Your task to perform on an android device: What's on my calendar tomorrow? Image 0: 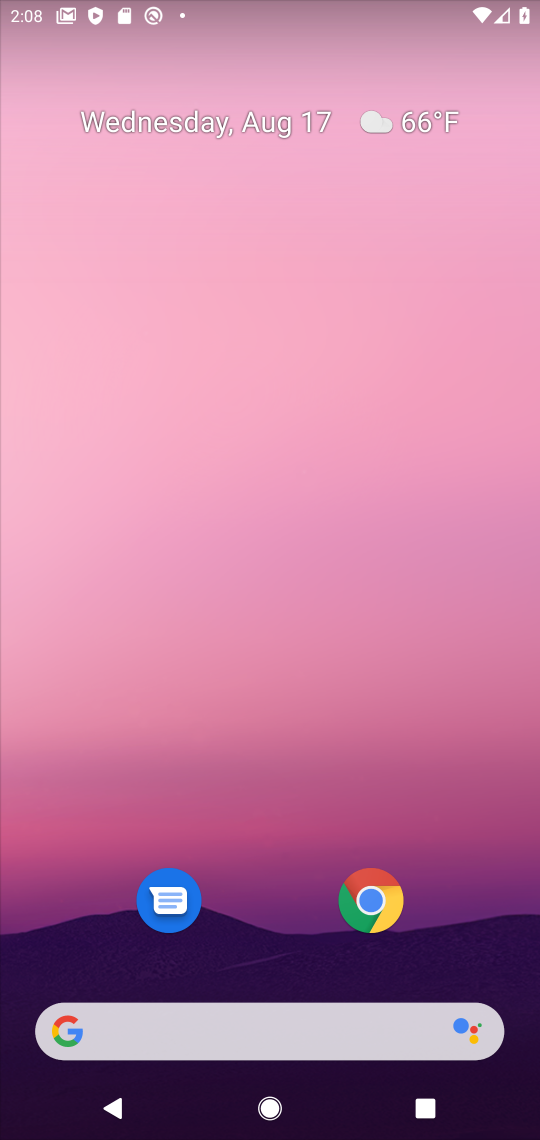
Step 0: drag from (250, 1022) to (269, 164)
Your task to perform on an android device: What's on my calendar tomorrow? Image 1: 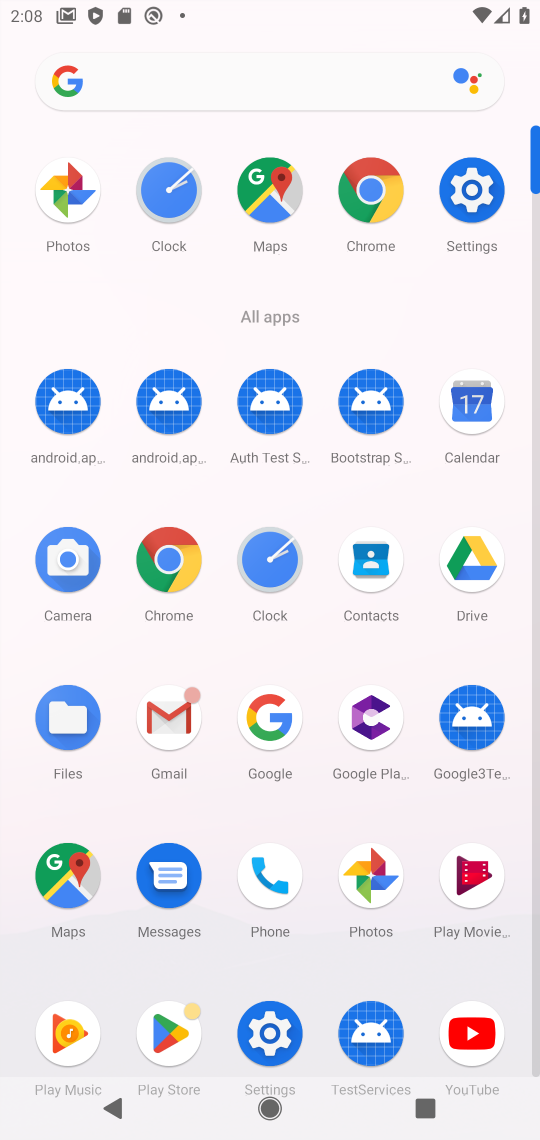
Step 1: click (472, 400)
Your task to perform on an android device: What's on my calendar tomorrow? Image 2: 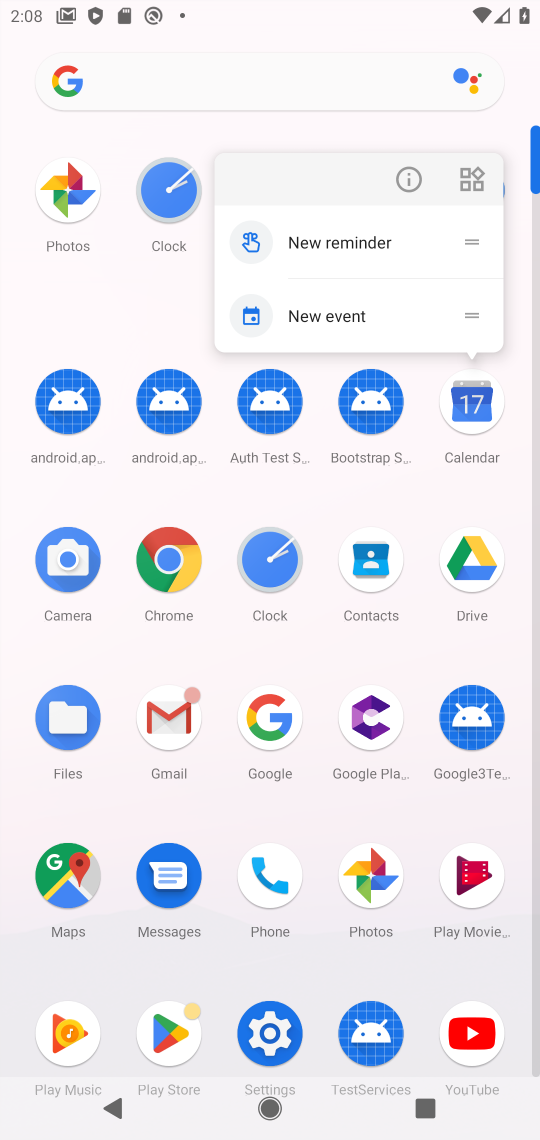
Step 2: click (464, 409)
Your task to perform on an android device: What's on my calendar tomorrow? Image 3: 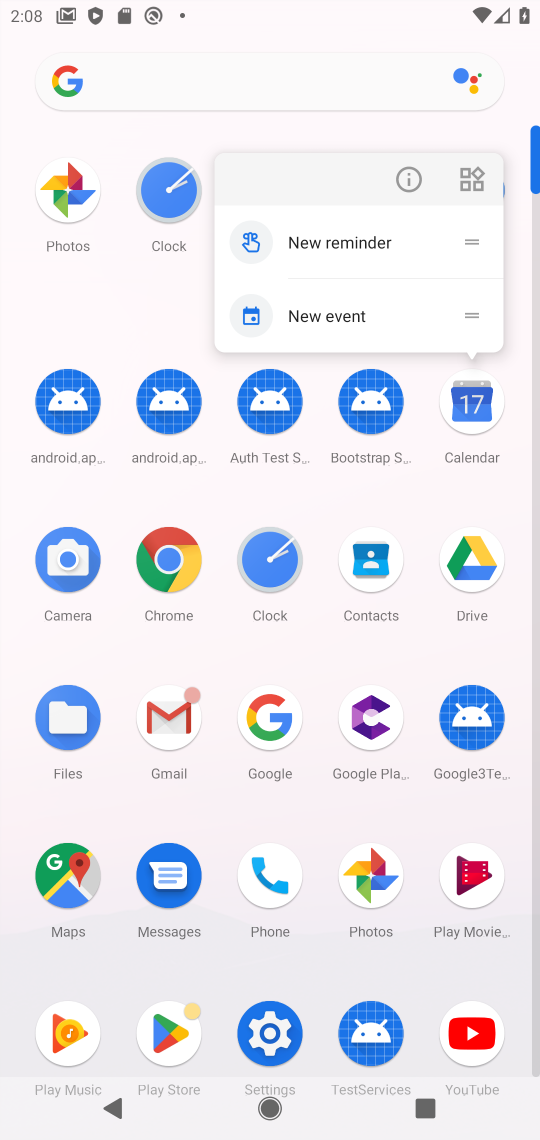
Step 3: click (489, 408)
Your task to perform on an android device: What's on my calendar tomorrow? Image 4: 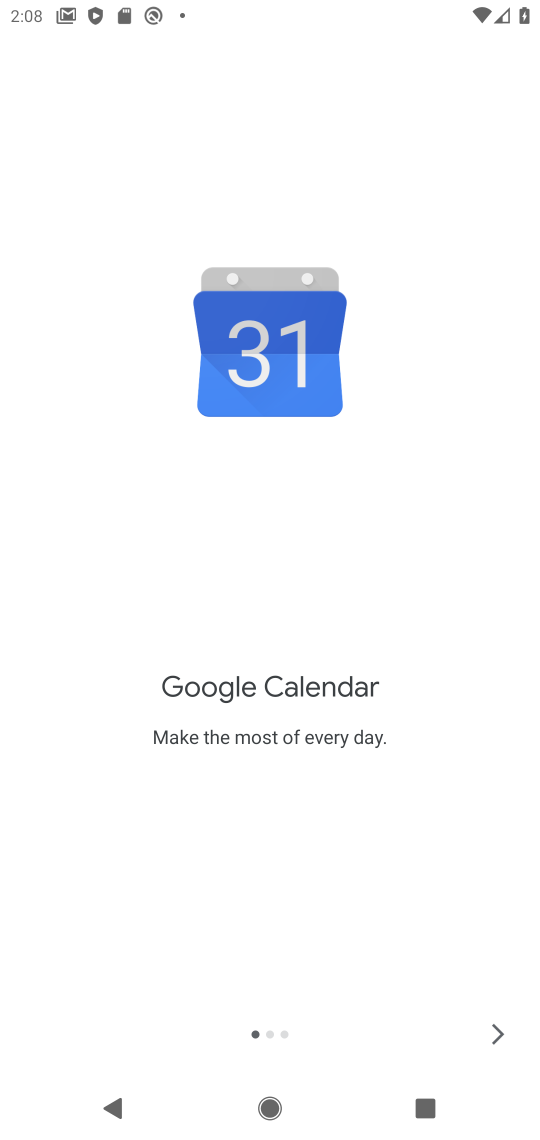
Step 4: click (495, 1037)
Your task to perform on an android device: What's on my calendar tomorrow? Image 5: 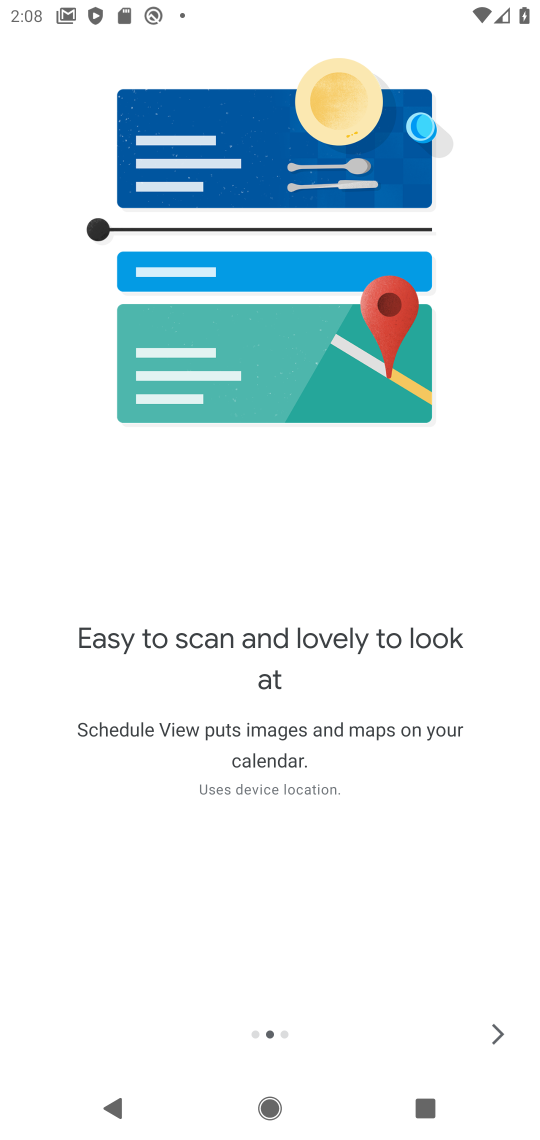
Step 5: click (504, 1038)
Your task to perform on an android device: What's on my calendar tomorrow? Image 6: 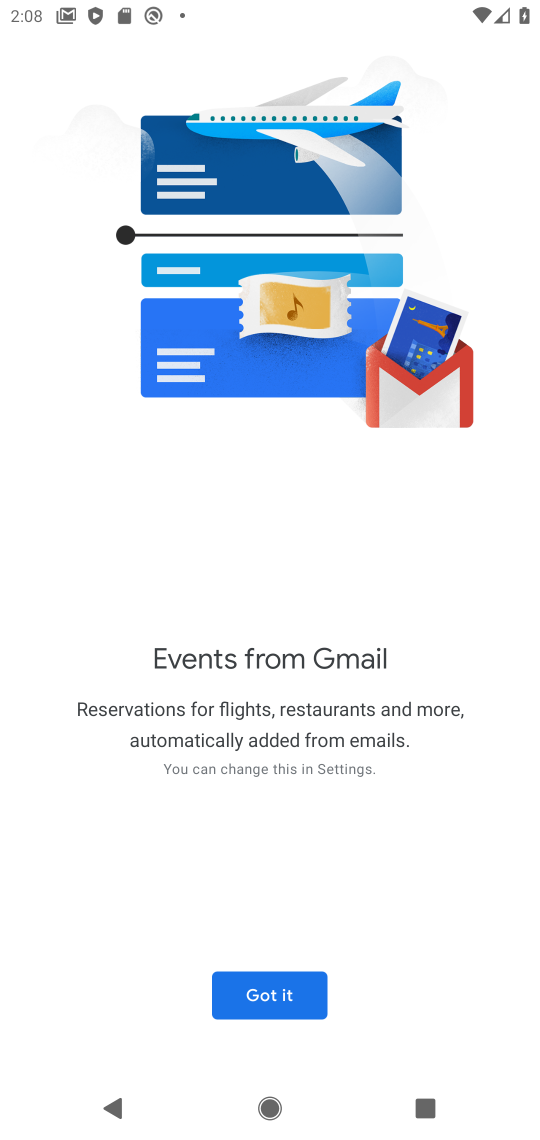
Step 6: click (272, 974)
Your task to perform on an android device: What's on my calendar tomorrow? Image 7: 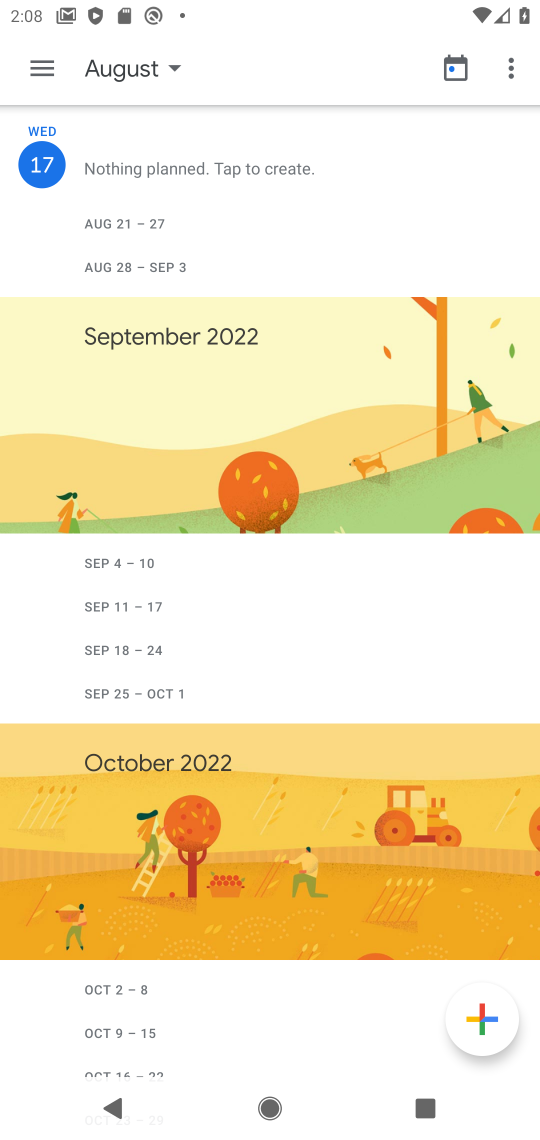
Step 7: click (136, 59)
Your task to perform on an android device: What's on my calendar tomorrow? Image 8: 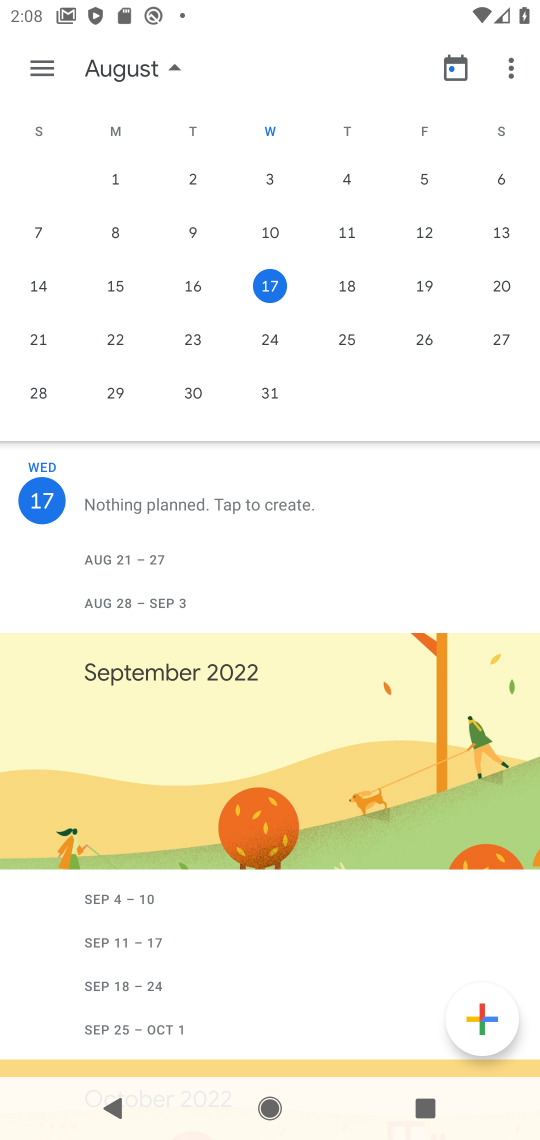
Step 8: click (359, 285)
Your task to perform on an android device: What's on my calendar tomorrow? Image 9: 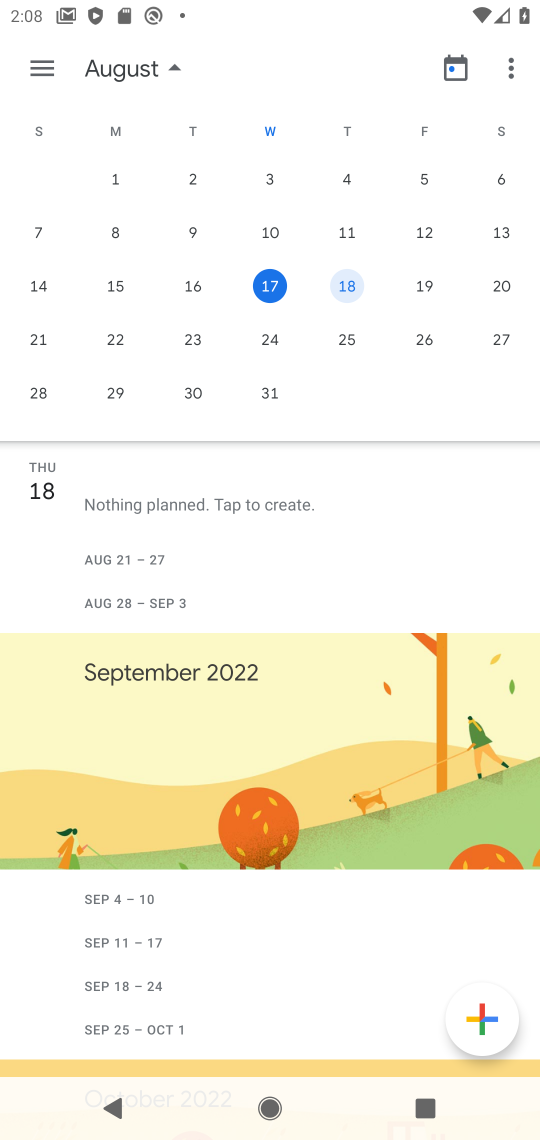
Step 9: click (44, 56)
Your task to perform on an android device: What's on my calendar tomorrow? Image 10: 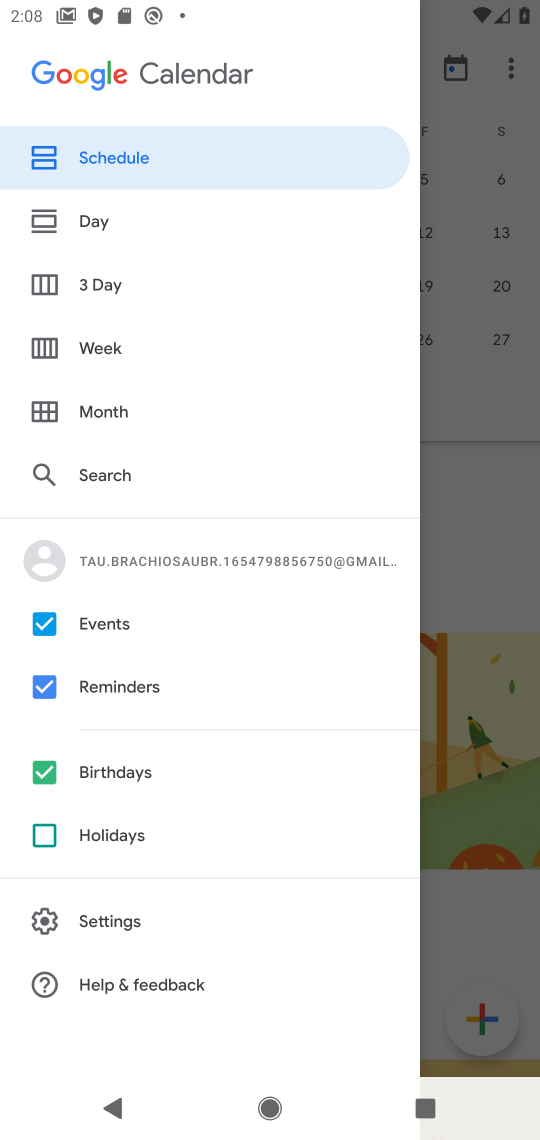
Step 10: click (104, 218)
Your task to perform on an android device: What's on my calendar tomorrow? Image 11: 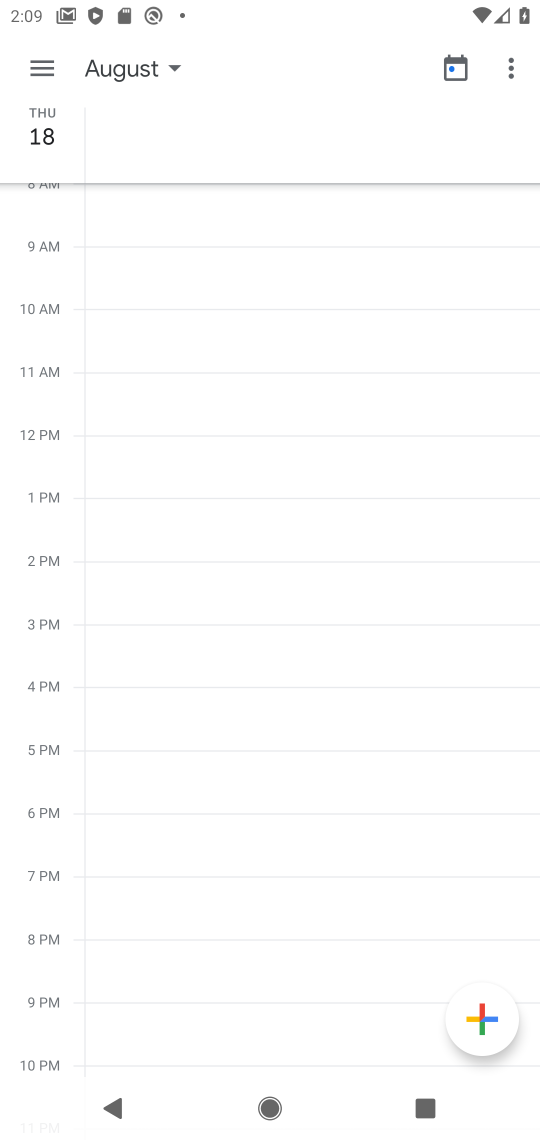
Step 11: click (49, 70)
Your task to perform on an android device: What's on my calendar tomorrow? Image 12: 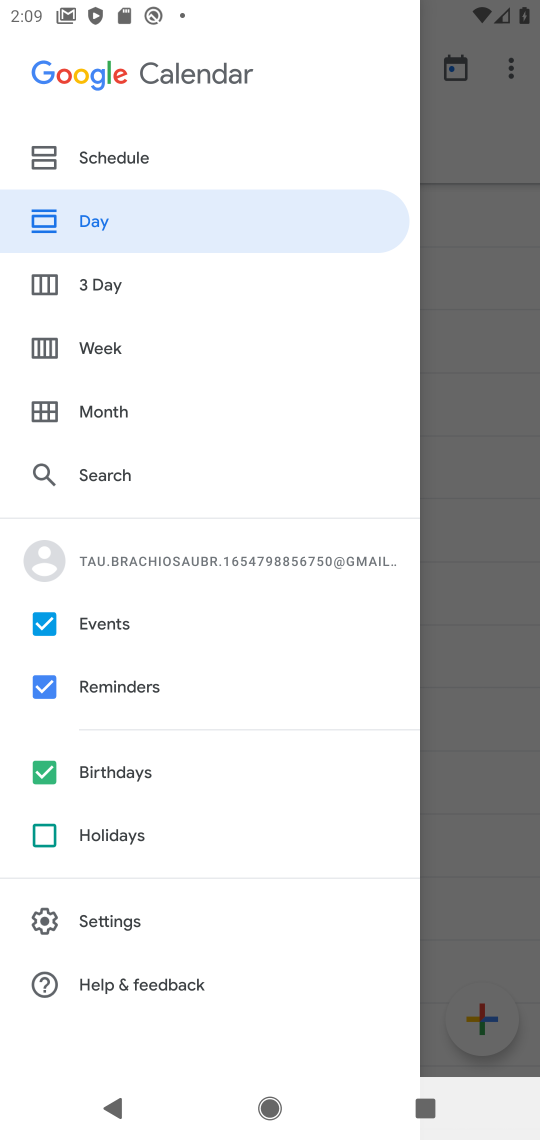
Step 12: click (97, 163)
Your task to perform on an android device: What's on my calendar tomorrow? Image 13: 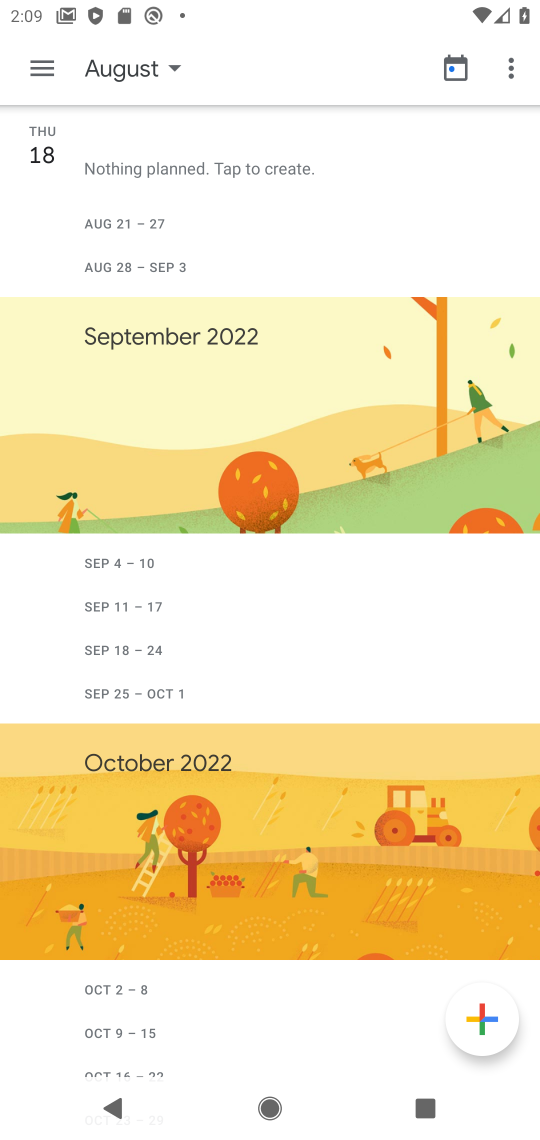
Step 13: task complete